Your task to perform on an android device: toggle improve location accuracy Image 0: 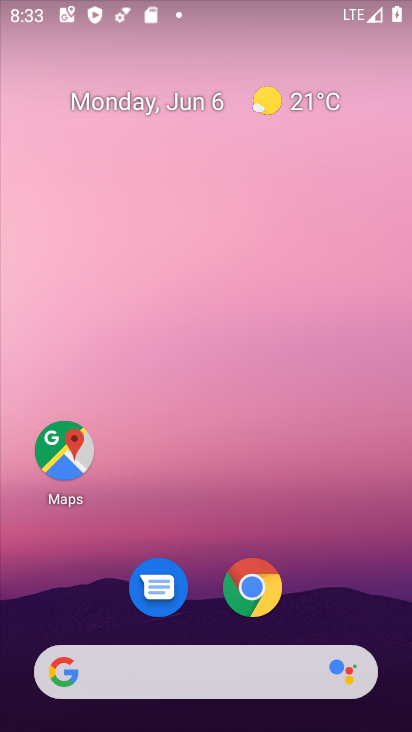
Step 0: drag from (188, 664) to (274, 0)
Your task to perform on an android device: toggle improve location accuracy Image 1: 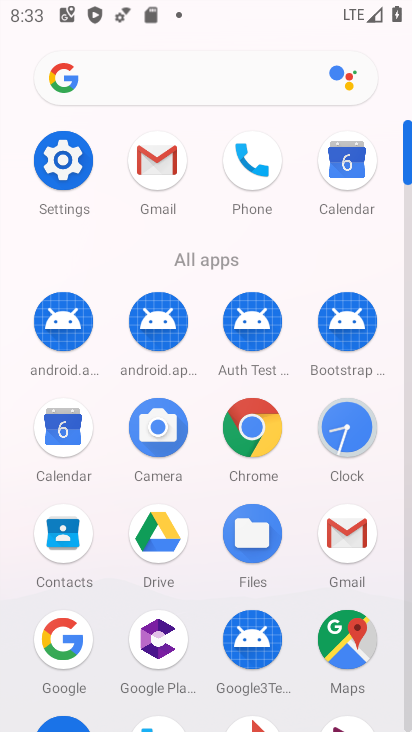
Step 1: click (342, 611)
Your task to perform on an android device: toggle improve location accuracy Image 2: 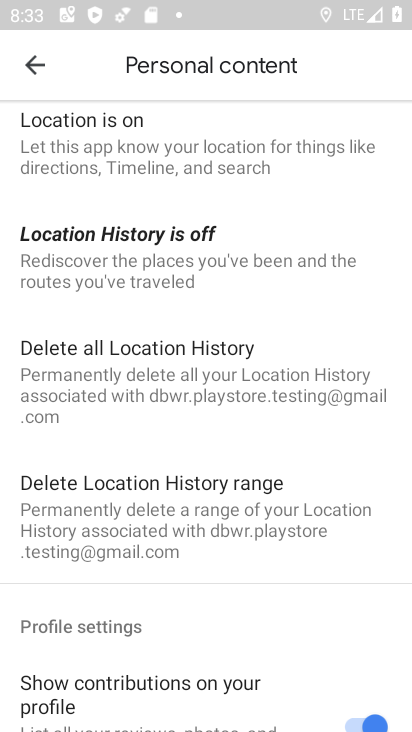
Step 2: drag from (235, 553) to (343, 32)
Your task to perform on an android device: toggle improve location accuracy Image 3: 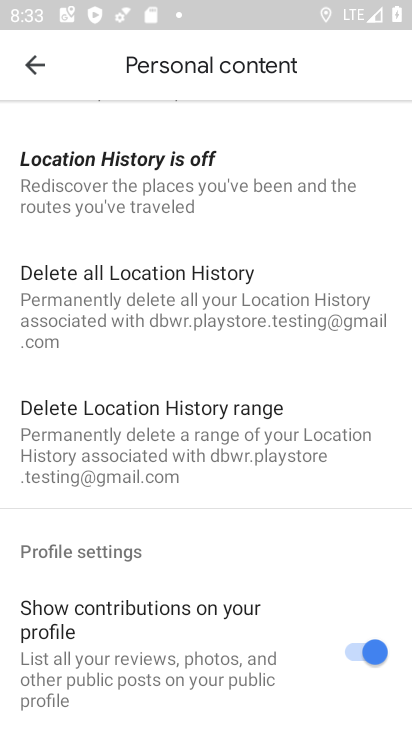
Step 3: click (45, 70)
Your task to perform on an android device: toggle improve location accuracy Image 4: 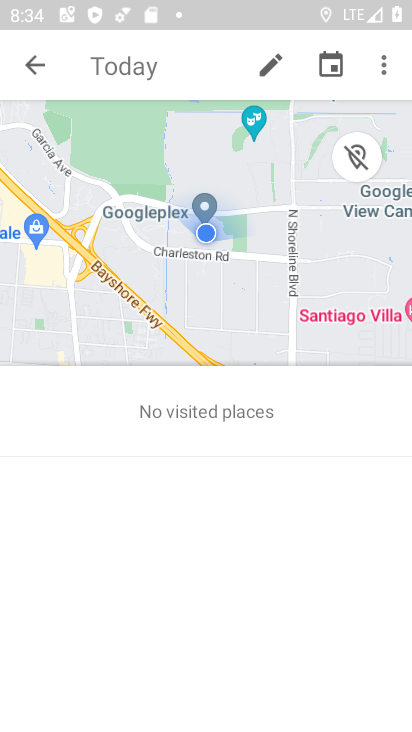
Step 4: click (26, 72)
Your task to perform on an android device: toggle improve location accuracy Image 5: 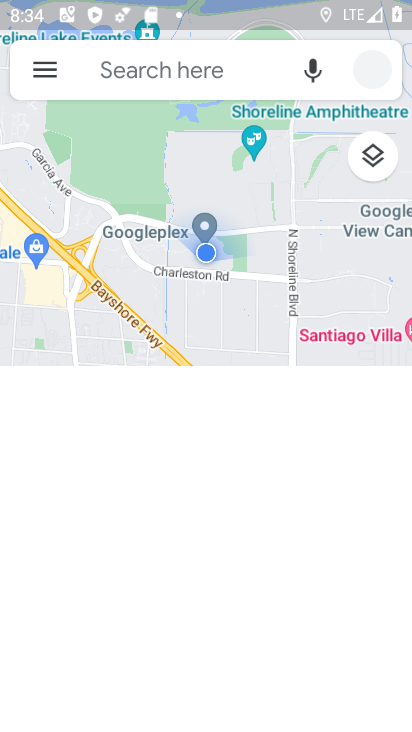
Step 5: click (41, 68)
Your task to perform on an android device: toggle improve location accuracy Image 6: 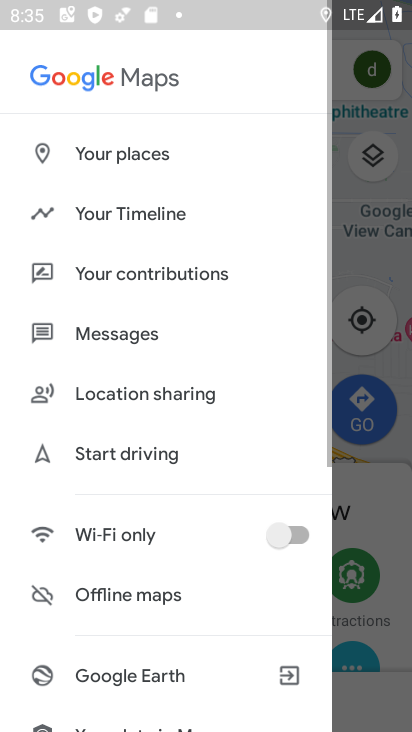
Step 6: drag from (204, 683) to (168, 0)
Your task to perform on an android device: toggle improve location accuracy Image 7: 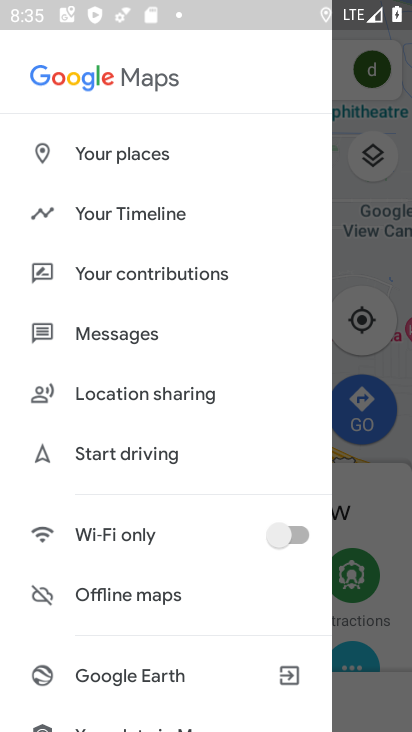
Step 7: drag from (147, 583) to (142, 19)
Your task to perform on an android device: toggle improve location accuracy Image 8: 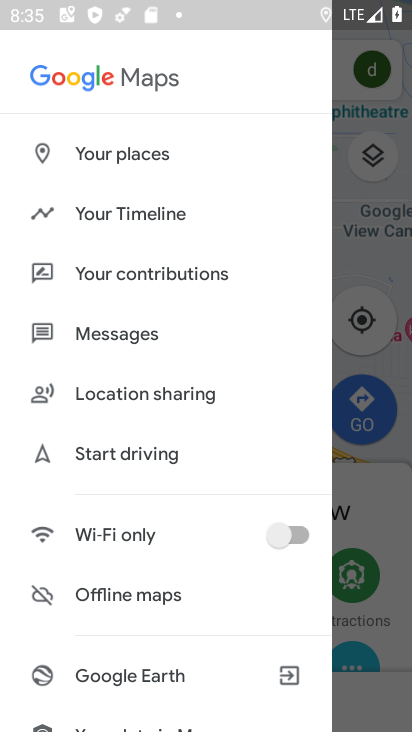
Step 8: drag from (151, 608) to (100, 27)
Your task to perform on an android device: toggle improve location accuracy Image 9: 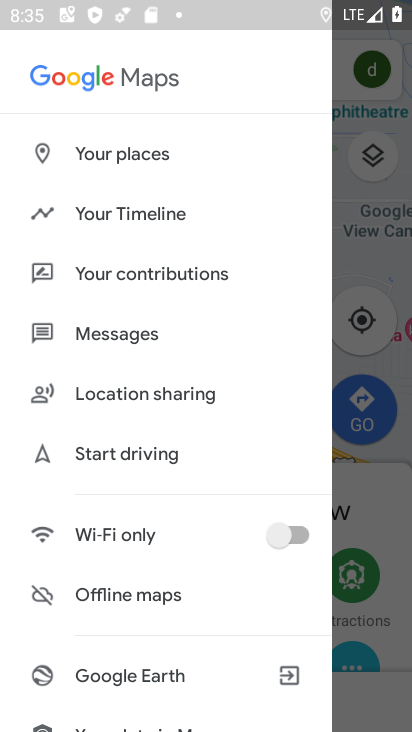
Step 9: drag from (94, 684) to (329, 1)
Your task to perform on an android device: toggle improve location accuracy Image 10: 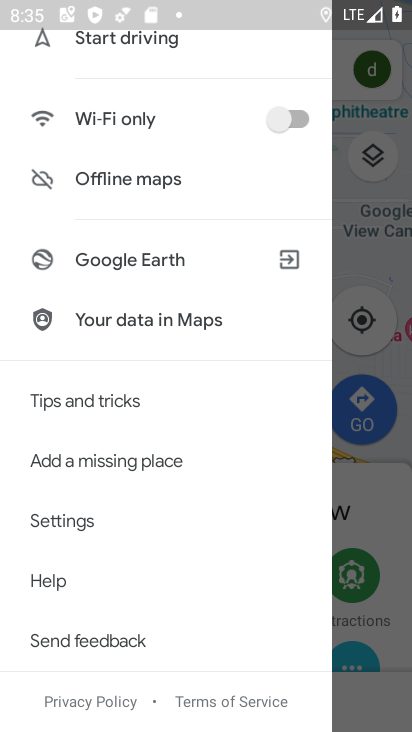
Step 10: click (118, 507)
Your task to perform on an android device: toggle improve location accuracy Image 11: 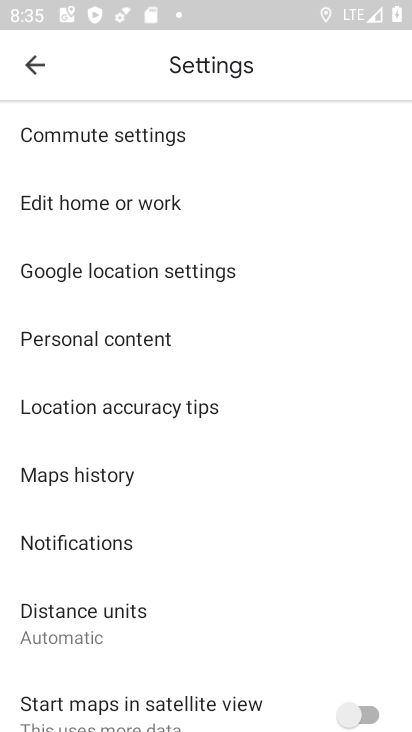
Step 11: click (195, 277)
Your task to perform on an android device: toggle improve location accuracy Image 12: 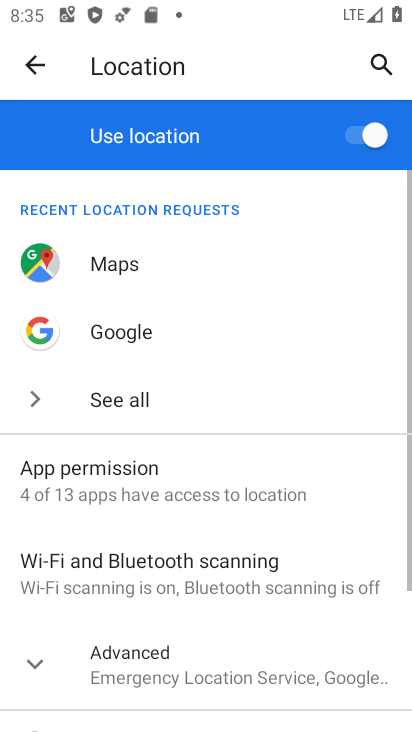
Step 12: click (296, 670)
Your task to perform on an android device: toggle improve location accuracy Image 13: 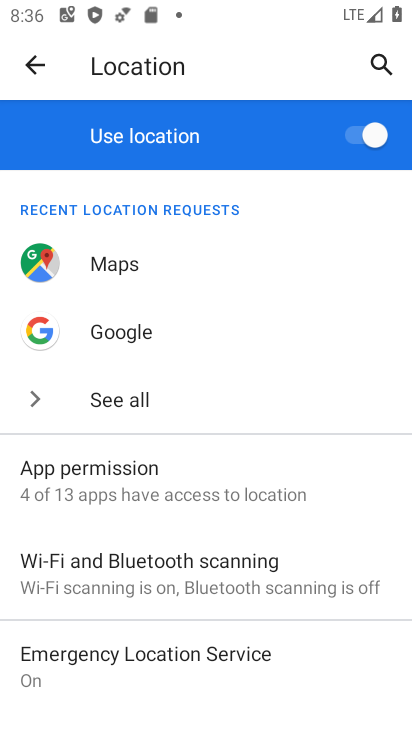
Step 13: drag from (265, 693) to (250, 94)
Your task to perform on an android device: toggle improve location accuracy Image 14: 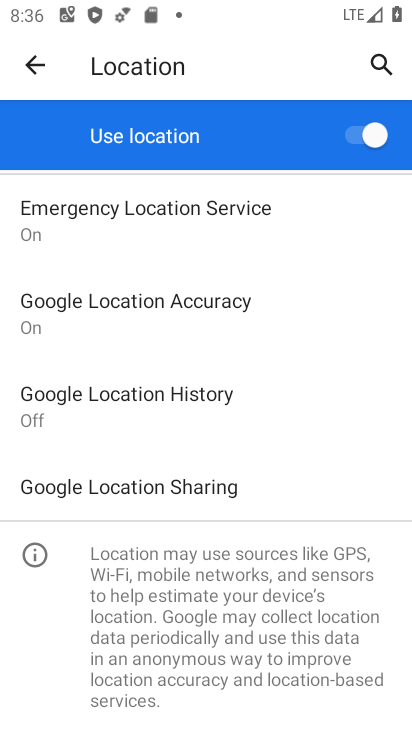
Step 14: click (172, 309)
Your task to perform on an android device: toggle improve location accuracy Image 15: 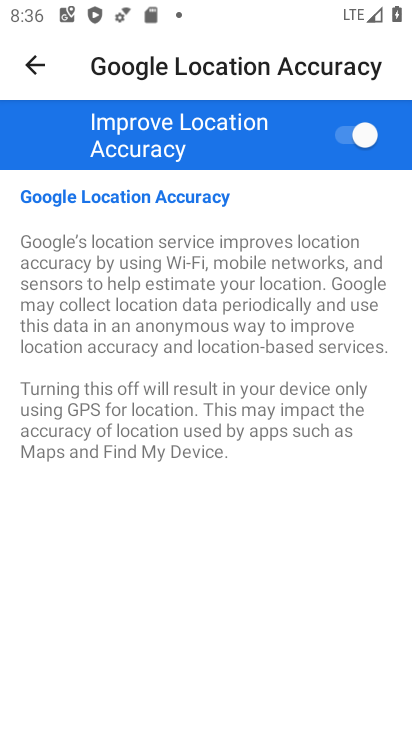
Step 15: click (355, 133)
Your task to perform on an android device: toggle improve location accuracy Image 16: 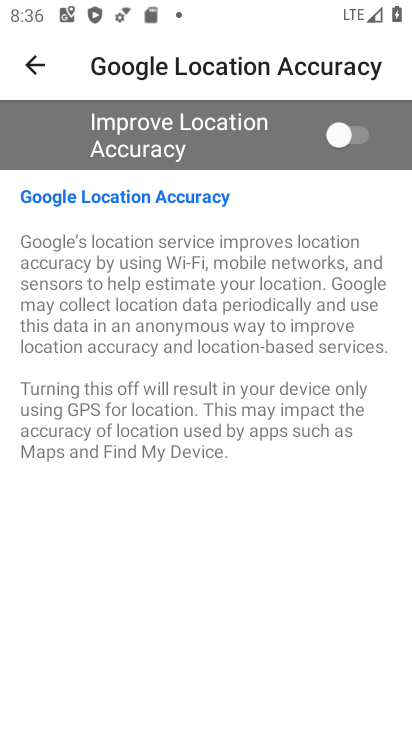
Step 16: task complete